Your task to perform on an android device: Clear the cart on ebay.com. Search for "razer nari" on ebay.com, select the first entry, and add it to the cart. Image 0: 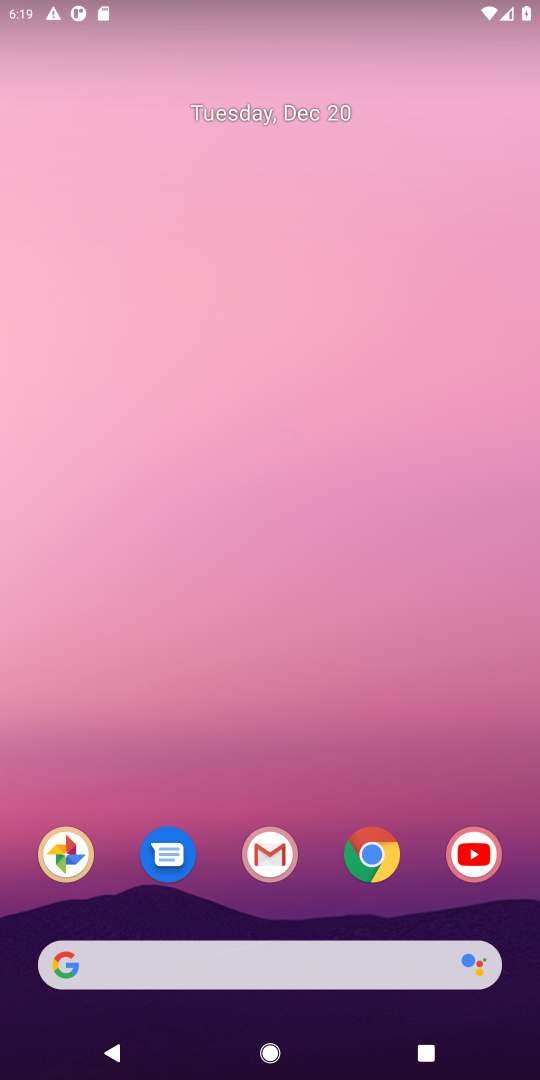
Step 0: click (363, 850)
Your task to perform on an android device: Clear the cart on ebay.com. Search for "razer nari" on ebay.com, select the first entry, and add it to the cart. Image 1: 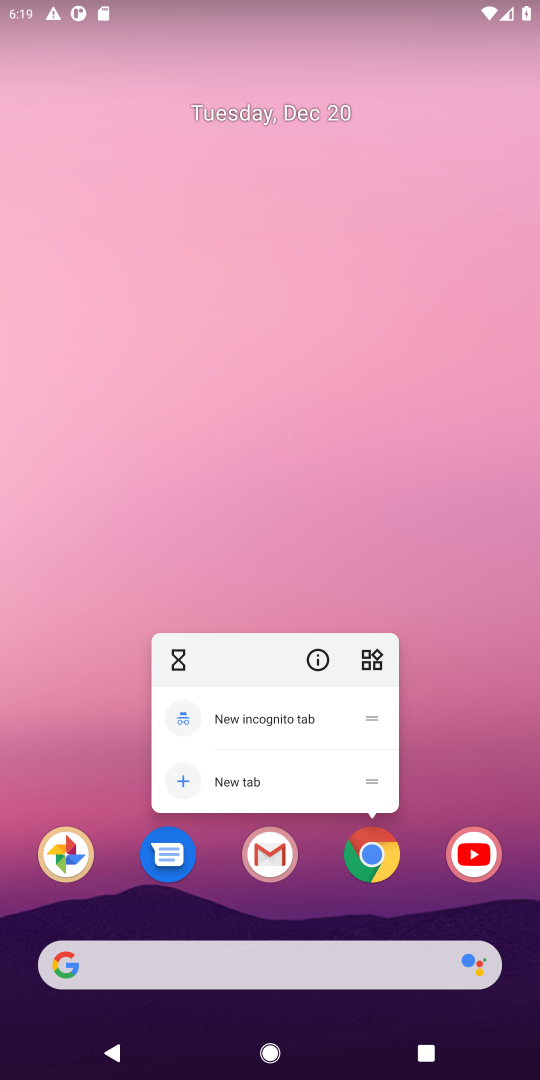
Step 1: click (366, 854)
Your task to perform on an android device: Clear the cart on ebay.com. Search for "razer nari" on ebay.com, select the first entry, and add it to the cart. Image 2: 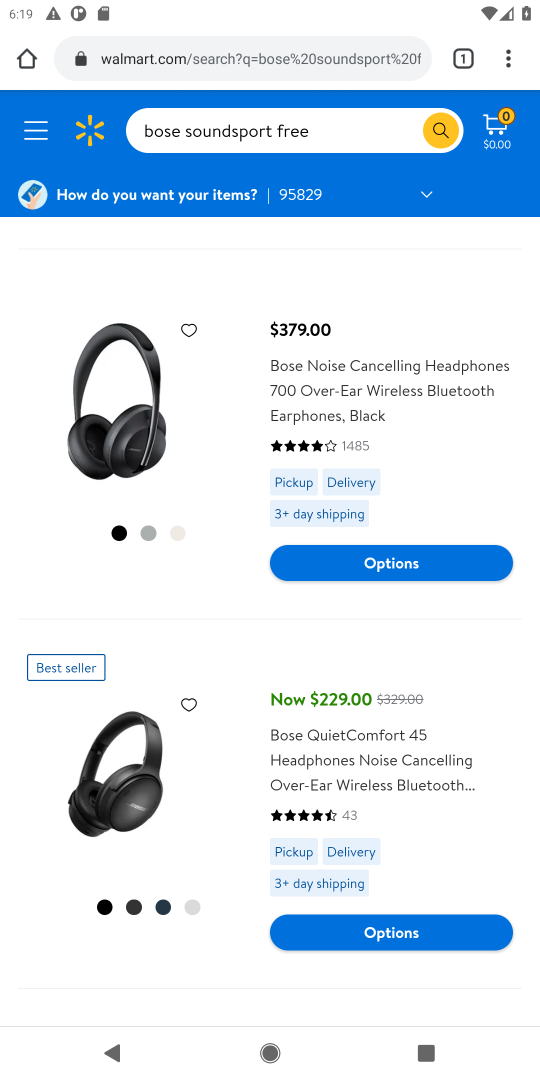
Step 2: click (178, 58)
Your task to perform on an android device: Clear the cart on ebay.com. Search for "razer nari" on ebay.com, select the first entry, and add it to the cart. Image 3: 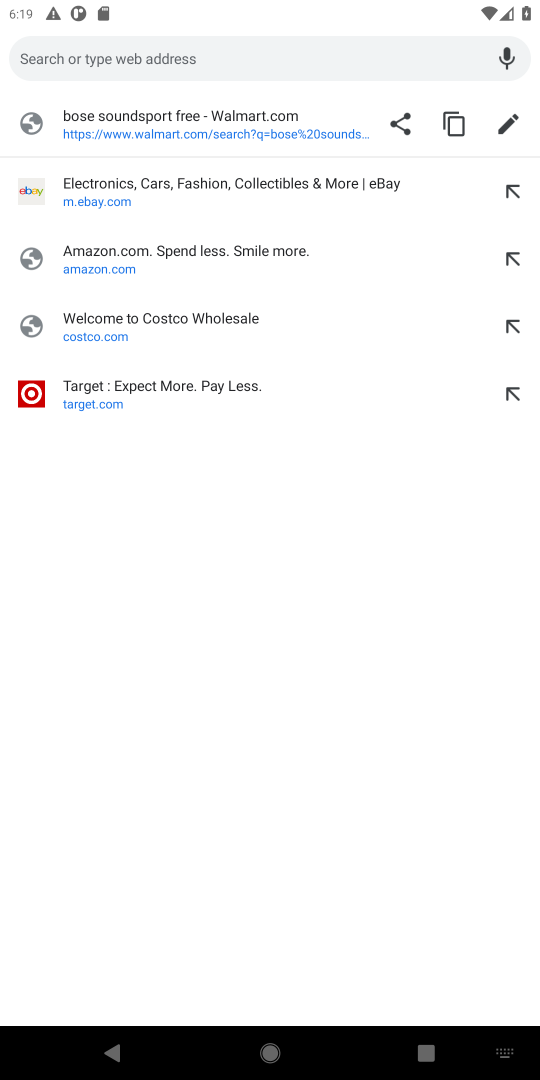
Step 3: click (81, 201)
Your task to perform on an android device: Clear the cart on ebay.com. Search for "razer nari" on ebay.com, select the first entry, and add it to the cart. Image 4: 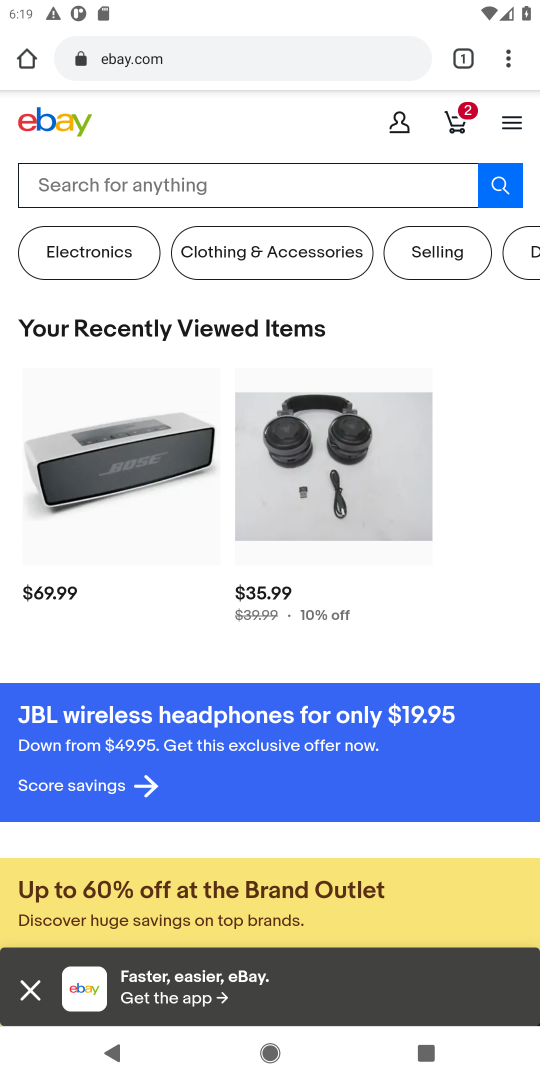
Step 4: click (459, 117)
Your task to perform on an android device: Clear the cart on ebay.com. Search for "razer nari" on ebay.com, select the first entry, and add it to the cart. Image 5: 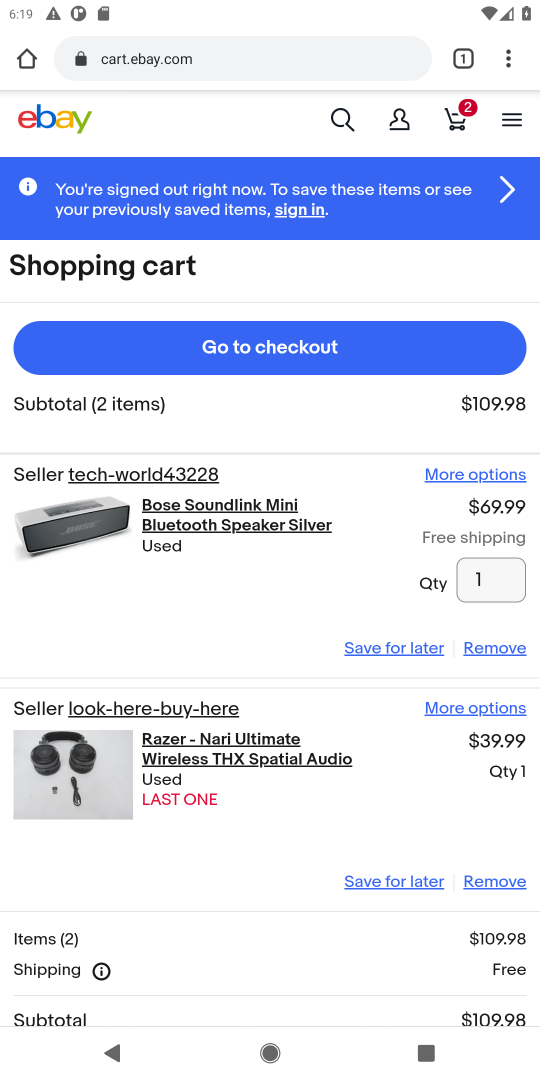
Step 5: click (496, 648)
Your task to perform on an android device: Clear the cart on ebay.com. Search for "razer nari" on ebay.com, select the first entry, and add it to the cart. Image 6: 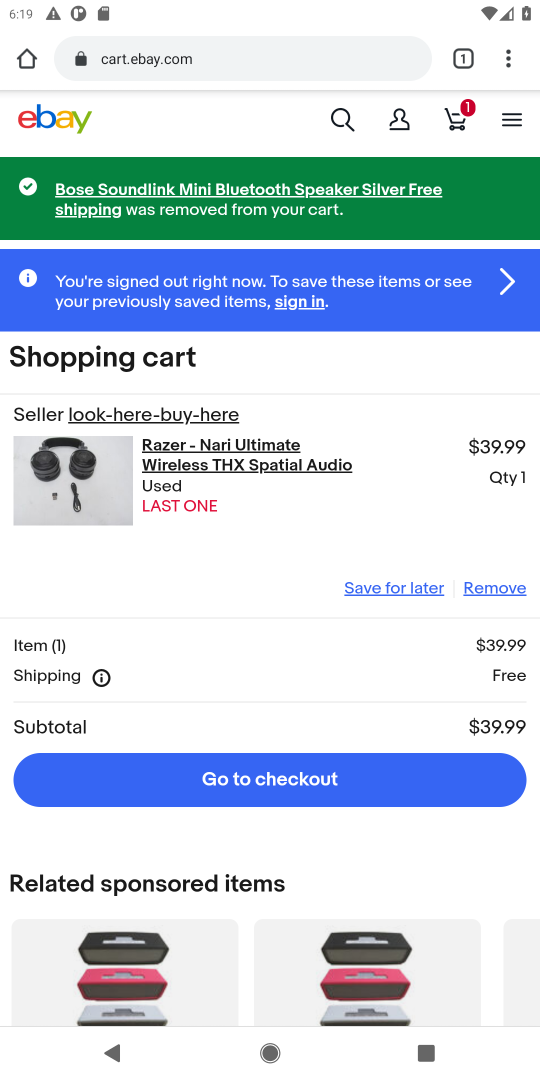
Step 6: click (497, 580)
Your task to perform on an android device: Clear the cart on ebay.com. Search for "razer nari" on ebay.com, select the first entry, and add it to the cart. Image 7: 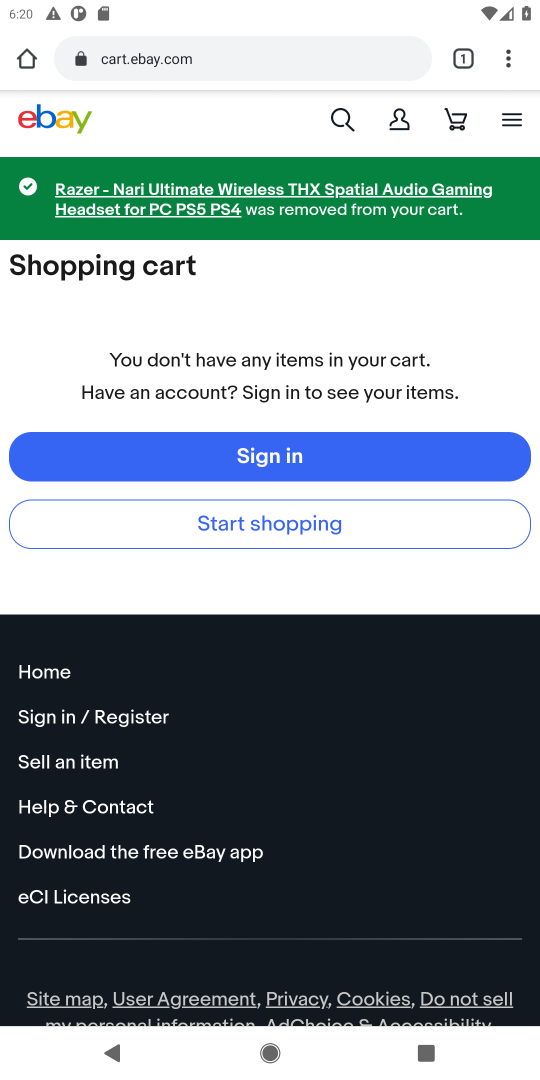
Step 7: click (332, 114)
Your task to perform on an android device: Clear the cart on ebay.com. Search for "razer nari" on ebay.com, select the first entry, and add it to the cart. Image 8: 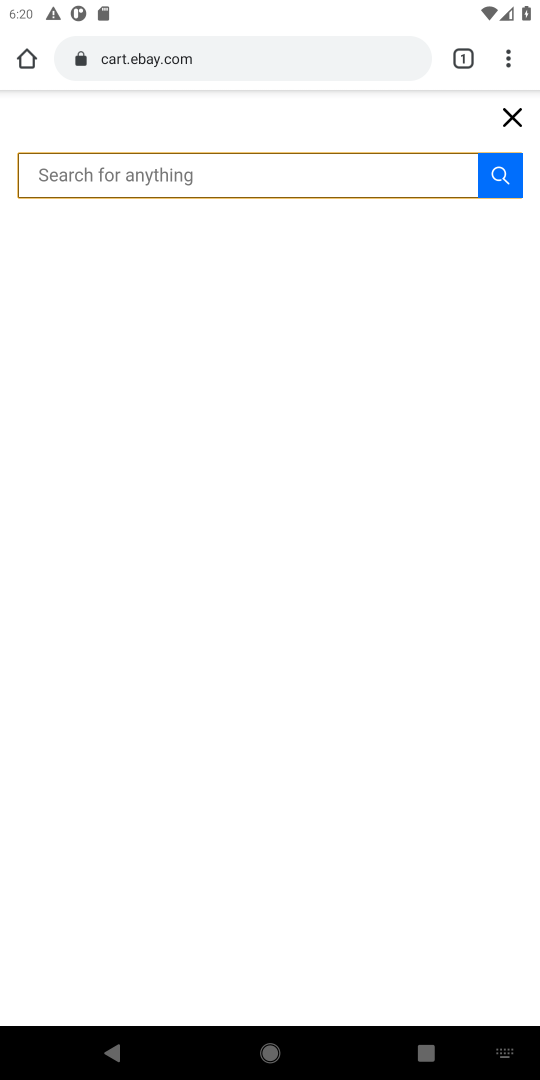
Step 8: type "razer nari"
Your task to perform on an android device: Clear the cart on ebay.com. Search for "razer nari" on ebay.com, select the first entry, and add it to the cart. Image 9: 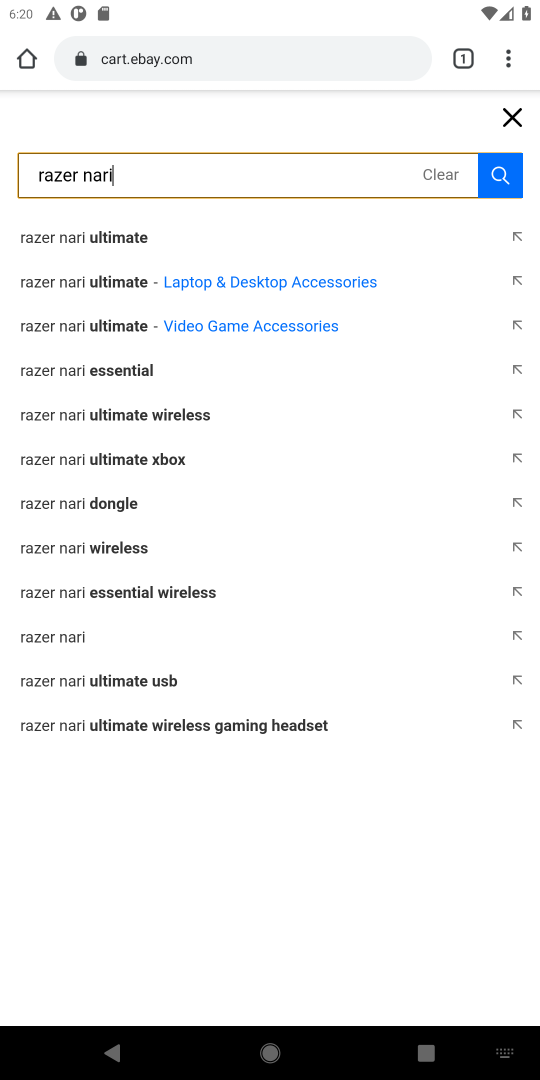
Step 9: click (60, 639)
Your task to perform on an android device: Clear the cart on ebay.com. Search for "razer nari" on ebay.com, select the first entry, and add it to the cart. Image 10: 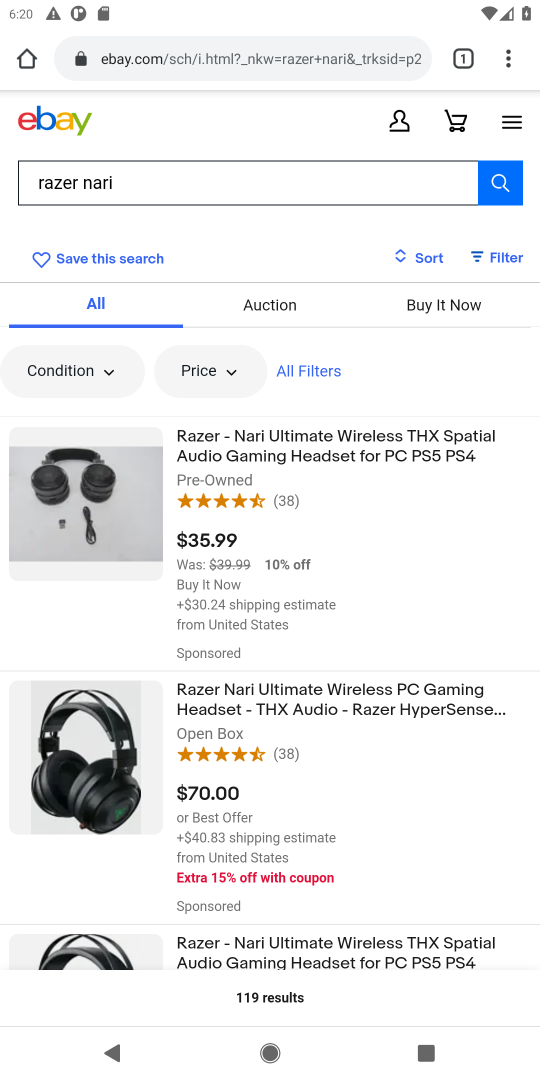
Step 10: click (290, 460)
Your task to perform on an android device: Clear the cart on ebay.com. Search for "razer nari" on ebay.com, select the first entry, and add it to the cart. Image 11: 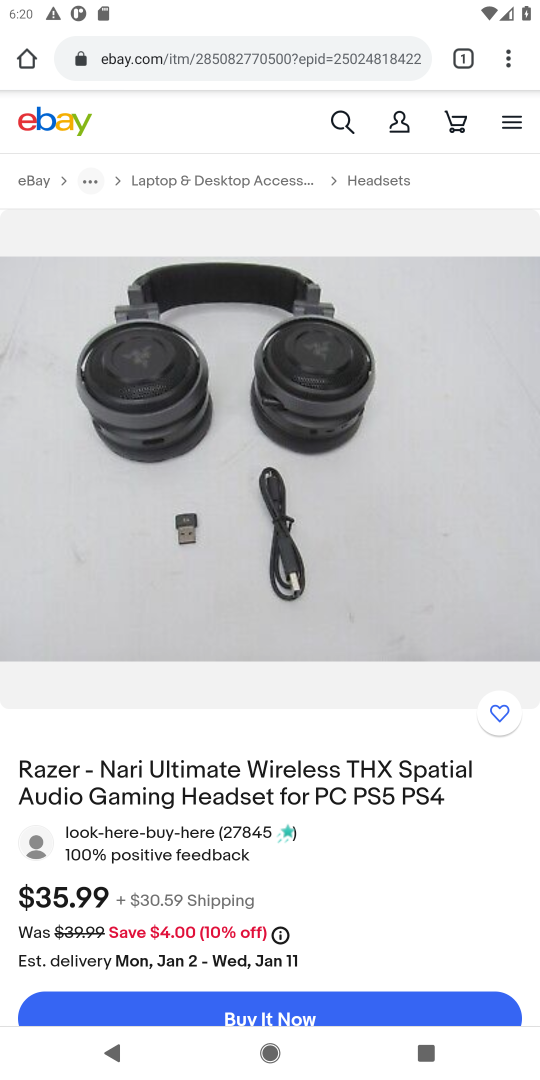
Step 11: drag from (220, 785) to (215, 259)
Your task to perform on an android device: Clear the cart on ebay.com. Search for "razer nari" on ebay.com, select the first entry, and add it to the cart. Image 12: 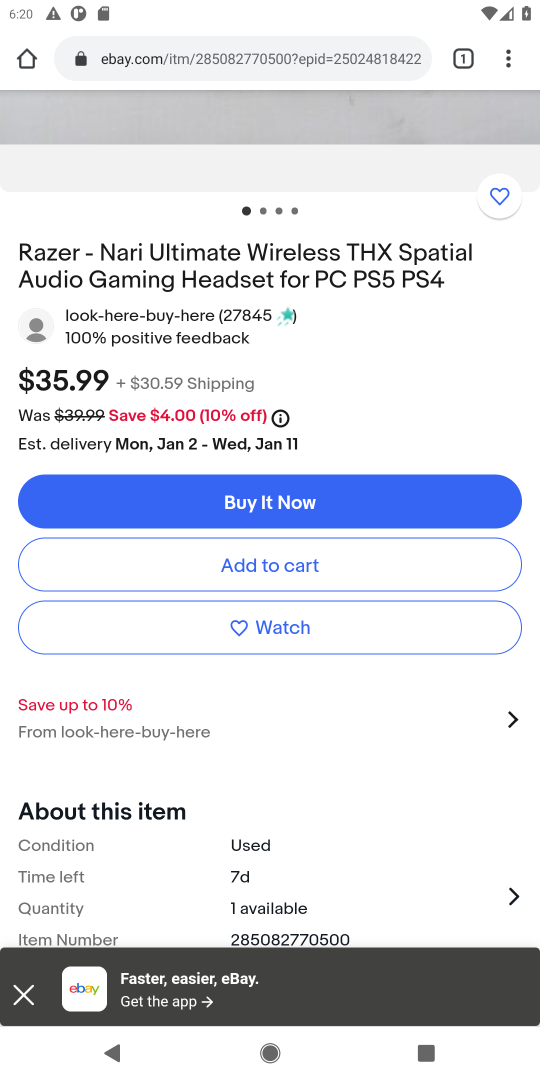
Step 12: click (221, 580)
Your task to perform on an android device: Clear the cart on ebay.com. Search for "razer nari" on ebay.com, select the first entry, and add it to the cart. Image 13: 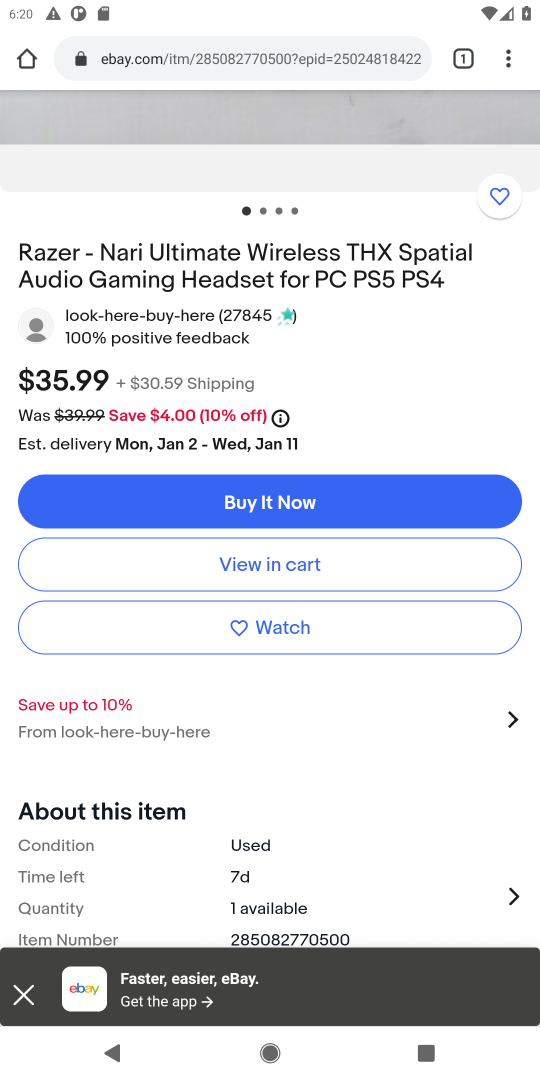
Step 13: task complete